Your task to perform on an android device: turn on the 24-hour format for clock Image 0: 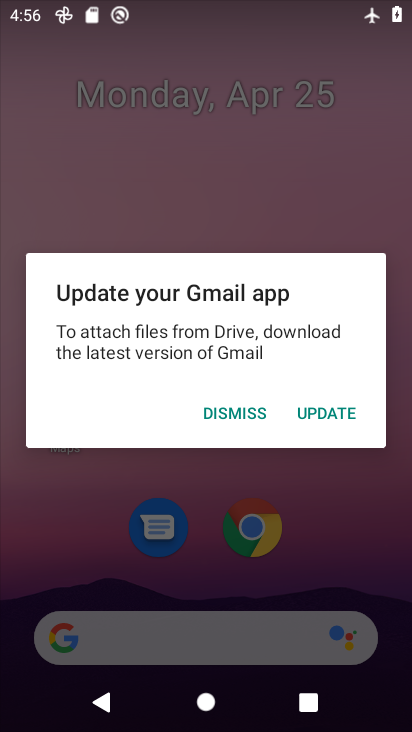
Step 0: press home button
Your task to perform on an android device: turn on the 24-hour format for clock Image 1: 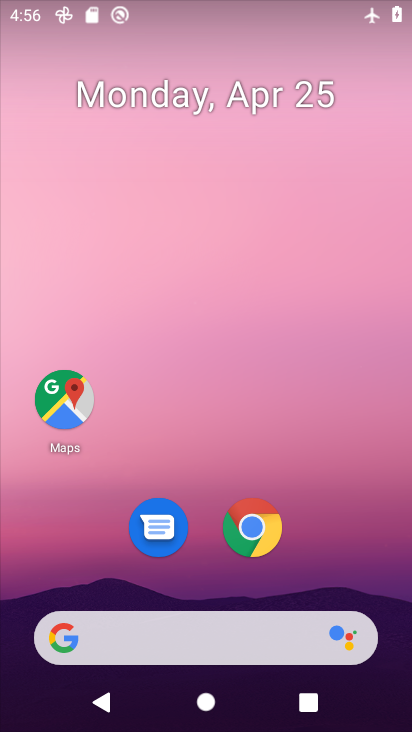
Step 1: drag from (357, 578) to (289, 164)
Your task to perform on an android device: turn on the 24-hour format for clock Image 2: 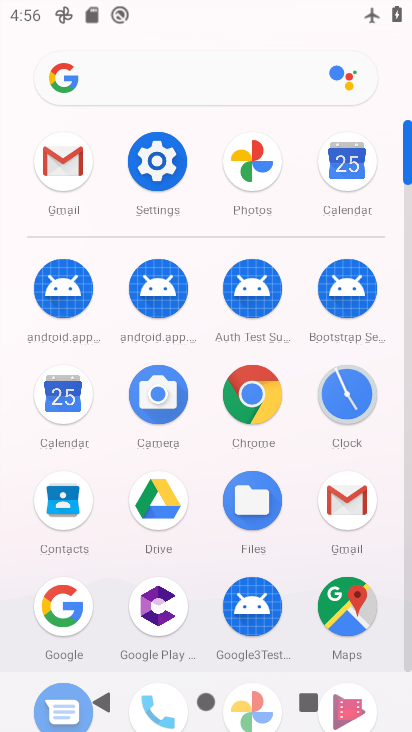
Step 2: click (341, 391)
Your task to perform on an android device: turn on the 24-hour format for clock Image 3: 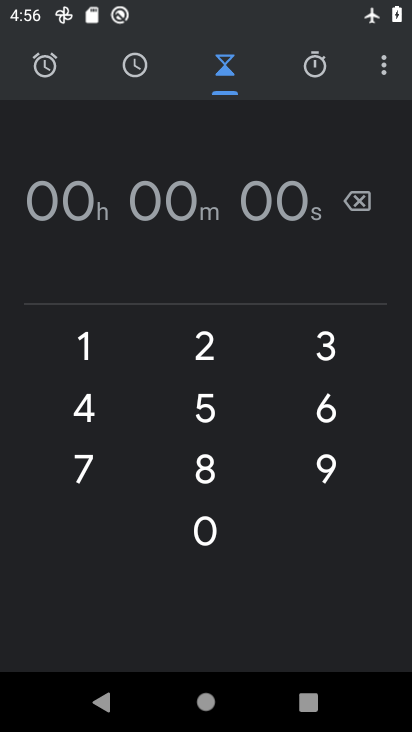
Step 3: click (383, 71)
Your task to perform on an android device: turn on the 24-hour format for clock Image 4: 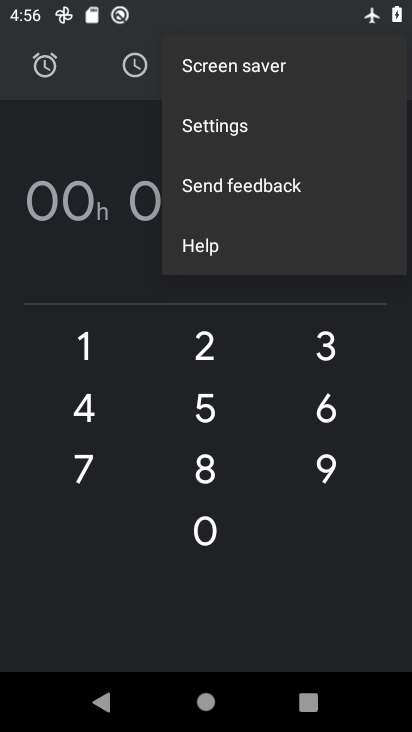
Step 4: click (225, 128)
Your task to perform on an android device: turn on the 24-hour format for clock Image 5: 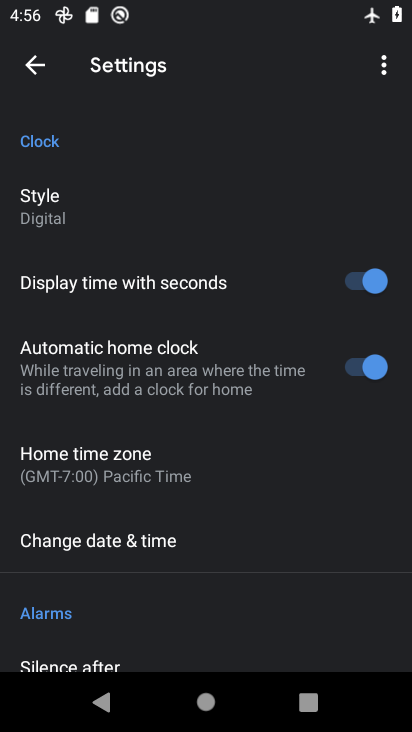
Step 5: click (150, 537)
Your task to perform on an android device: turn on the 24-hour format for clock Image 6: 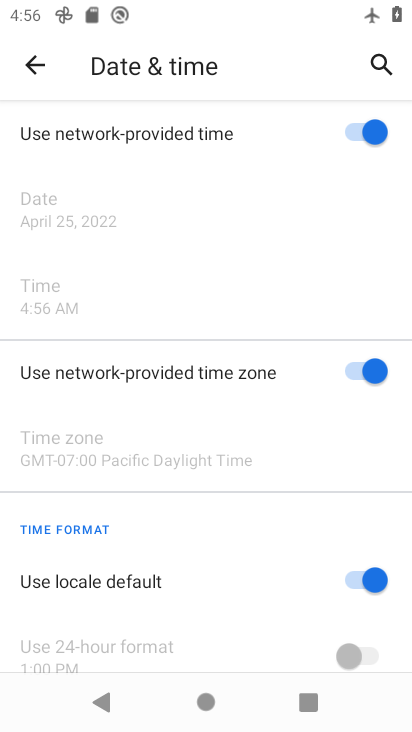
Step 6: drag from (291, 622) to (244, 381)
Your task to perform on an android device: turn on the 24-hour format for clock Image 7: 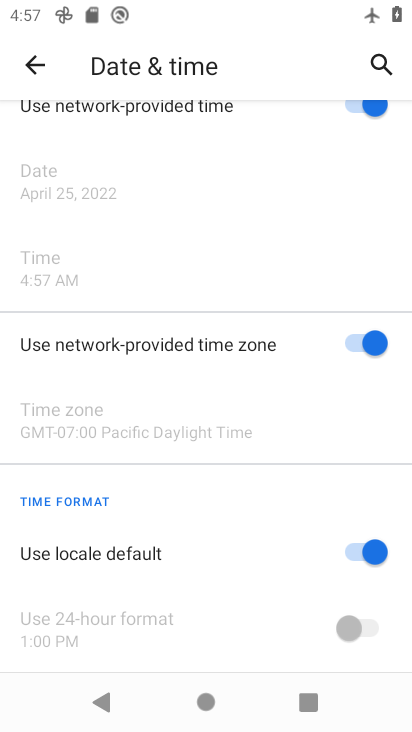
Step 7: click (344, 543)
Your task to perform on an android device: turn on the 24-hour format for clock Image 8: 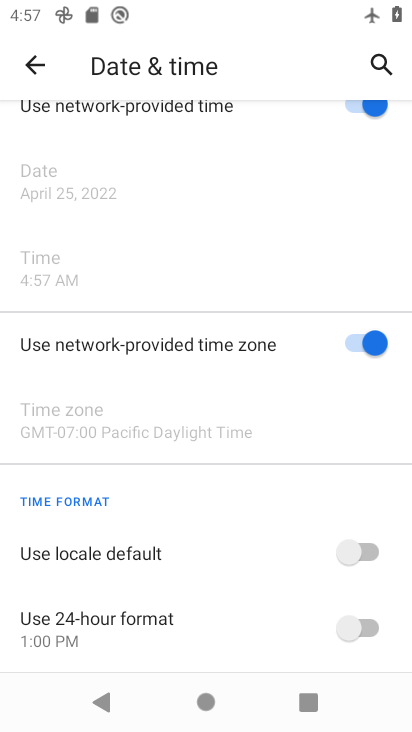
Step 8: click (370, 624)
Your task to perform on an android device: turn on the 24-hour format for clock Image 9: 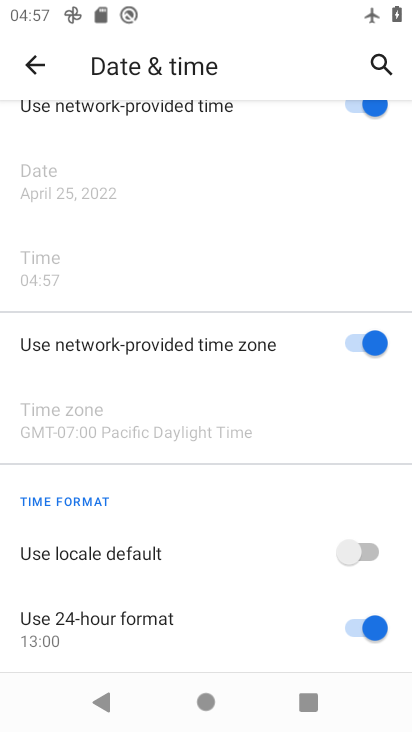
Step 9: task complete